Your task to perform on an android device: see tabs open on other devices in the chrome app Image 0: 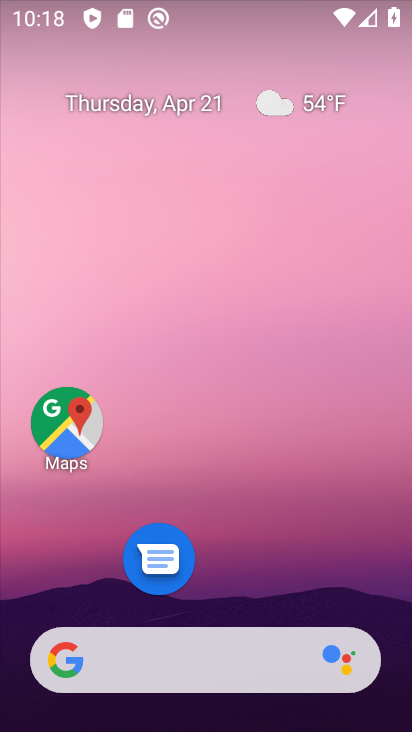
Step 0: drag from (314, 413) to (320, 53)
Your task to perform on an android device: see tabs open on other devices in the chrome app Image 1: 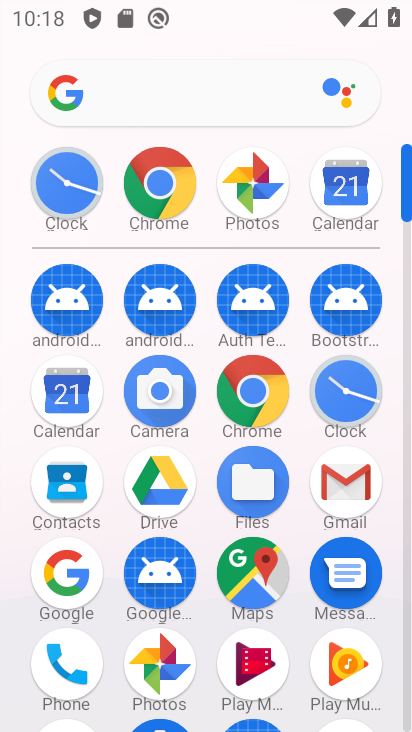
Step 1: click (162, 181)
Your task to perform on an android device: see tabs open on other devices in the chrome app Image 2: 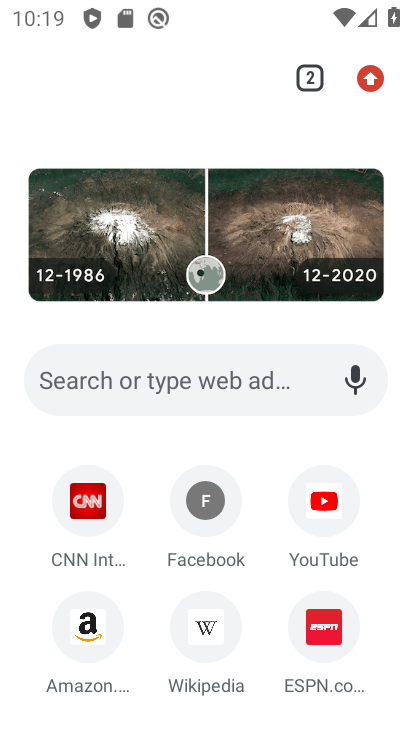
Step 2: task complete